Your task to perform on an android device: read, delete, or share a saved page in the chrome app Image 0: 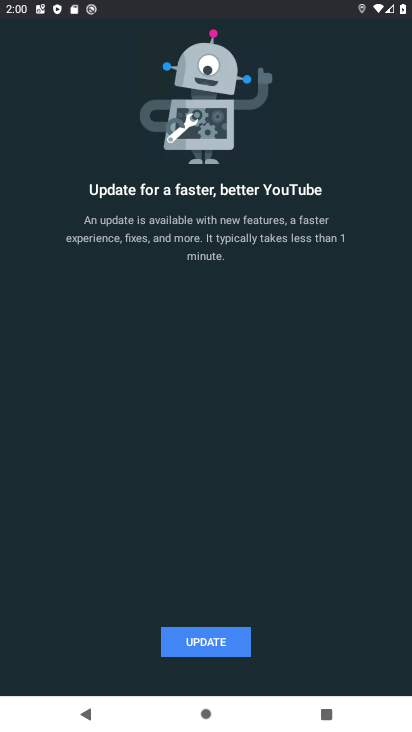
Step 0: press home button
Your task to perform on an android device: read, delete, or share a saved page in the chrome app Image 1: 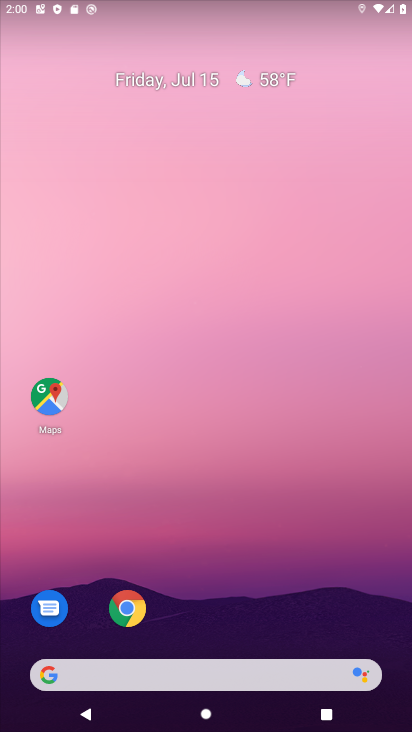
Step 1: drag from (250, 621) to (367, 86)
Your task to perform on an android device: read, delete, or share a saved page in the chrome app Image 2: 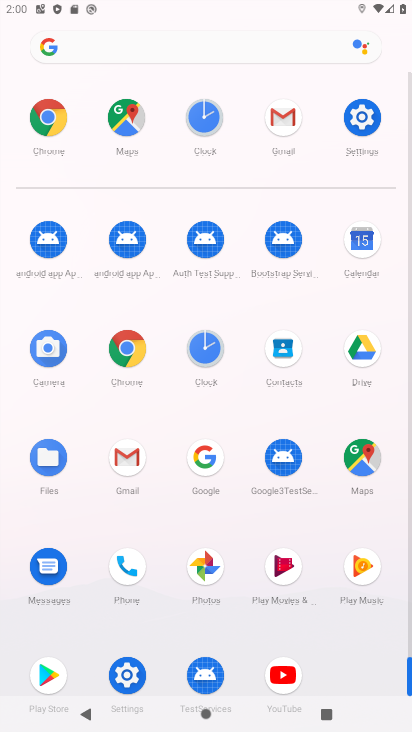
Step 2: click (127, 328)
Your task to perform on an android device: read, delete, or share a saved page in the chrome app Image 3: 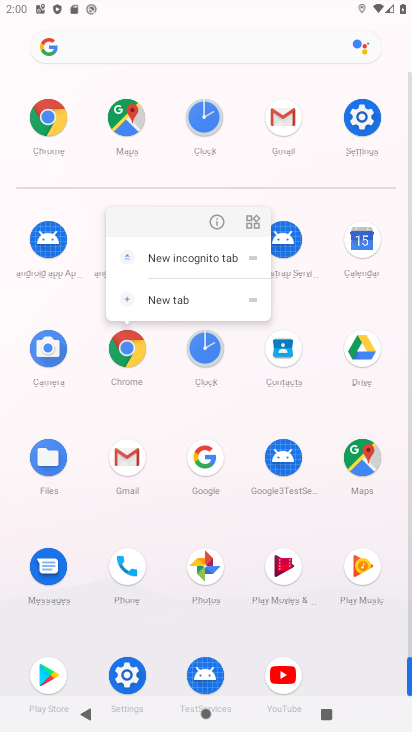
Step 3: click (123, 326)
Your task to perform on an android device: read, delete, or share a saved page in the chrome app Image 4: 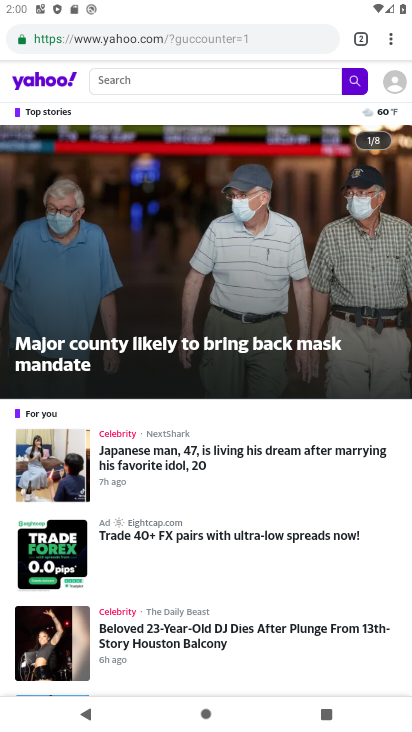
Step 4: drag from (199, 469) to (285, 107)
Your task to perform on an android device: read, delete, or share a saved page in the chrome app Image 5: 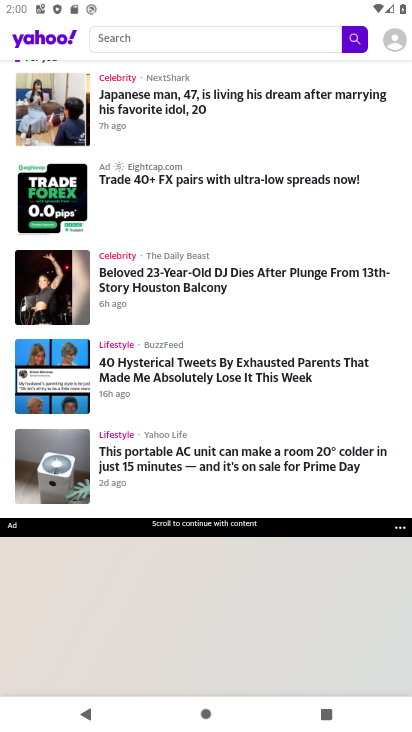
Step 5: drag from (322, 175) to (273, 656)
Your task to perform on an android device: read, delete, or share a saved page in the chrome app Image 6: 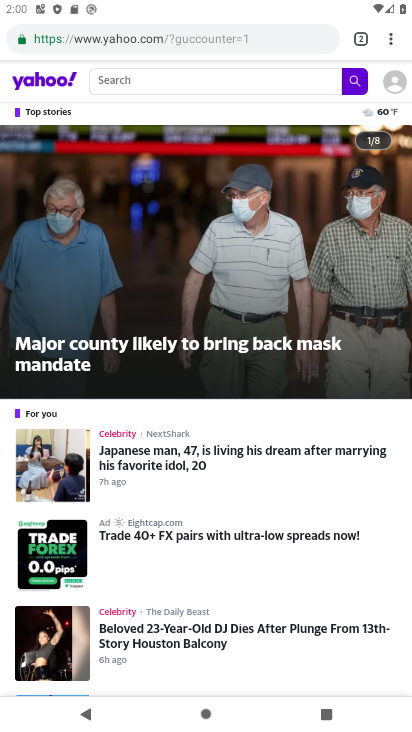
Step 6: drag from (386, 41) to (258, 49)
Your task to perform on an android device: read, delete, or share a saved page in the chrome app Image 7: 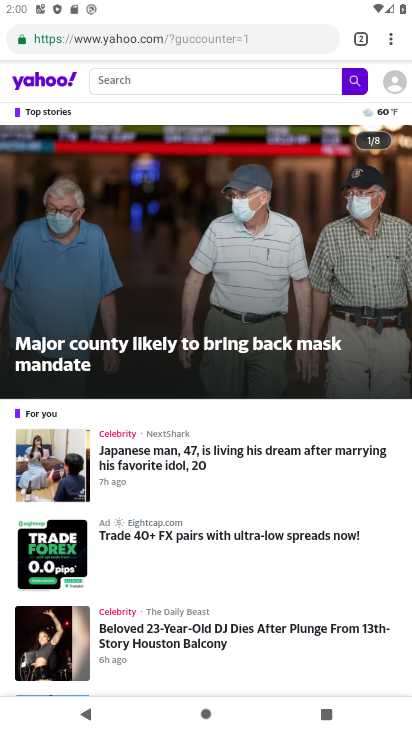
Step 7: drag from (394, 41) to (269, 39)
Your task to perform on an android device: read, delete, or share a saved page in the chrome app Image 8: 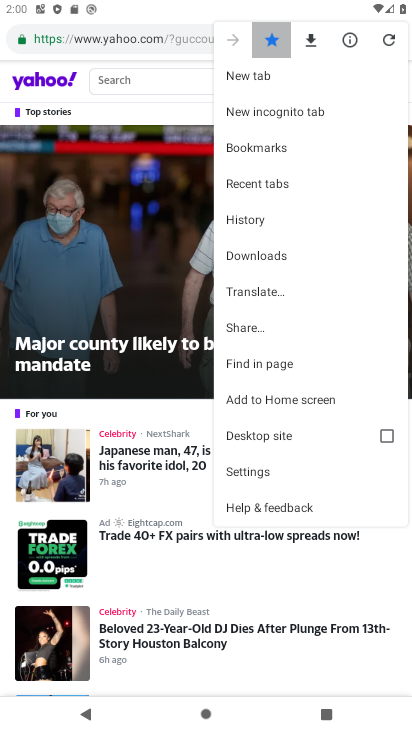
Step 8: click (269, 39)
Your task to perform on an android device: read, delete, or share a saved page in the chrome app Image 9: 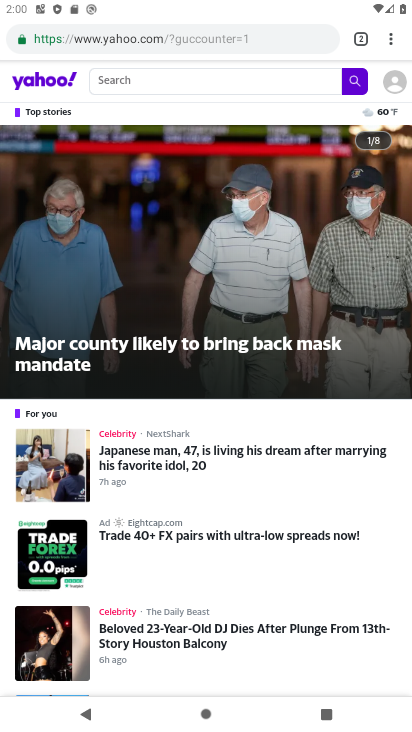
Step 9: drag from (388, 38) to (268, 51)
Your task to perform on an android device: read, delete, or share a saved page in the chrome app Image 10: 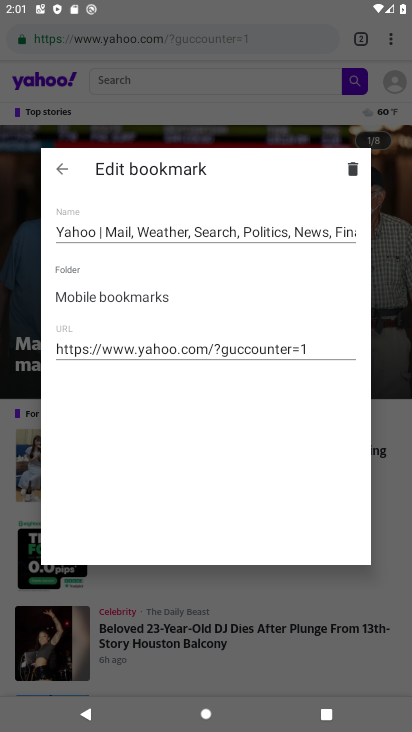
Step 10: click (345, 168)
Your task to perform on an android device: read, delete, or share a saved page in the chrome app Image 11: 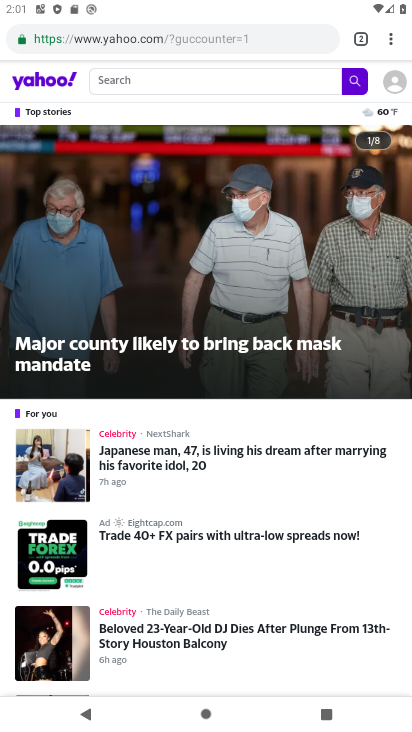
Step 11: task complete